Your task to perform on an android device: See recent photos Image 0: 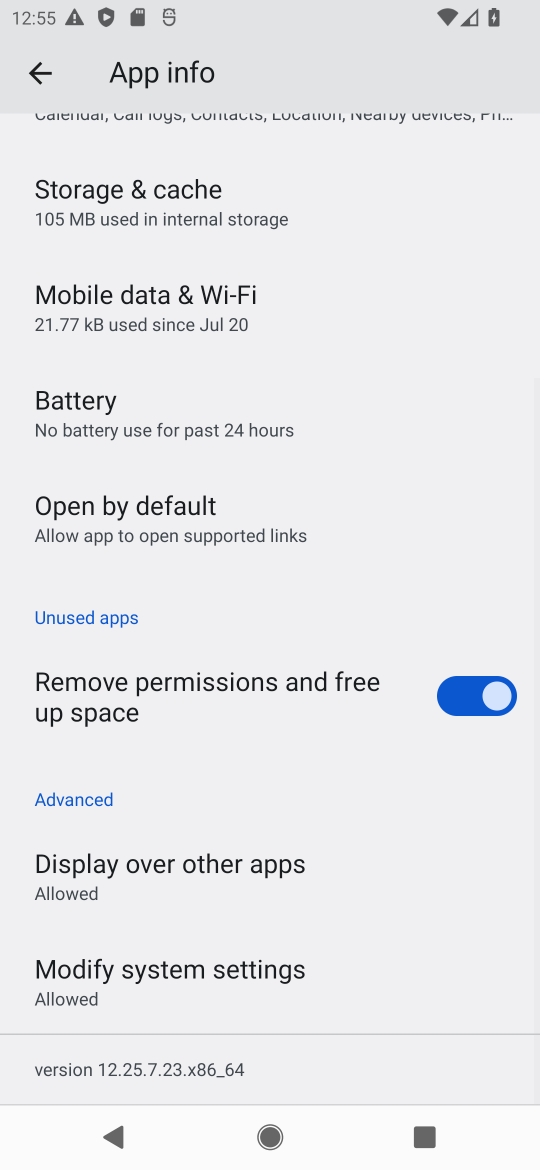
Step 0: press back button
Your task to perform on an android device: See recent photos Image 1: 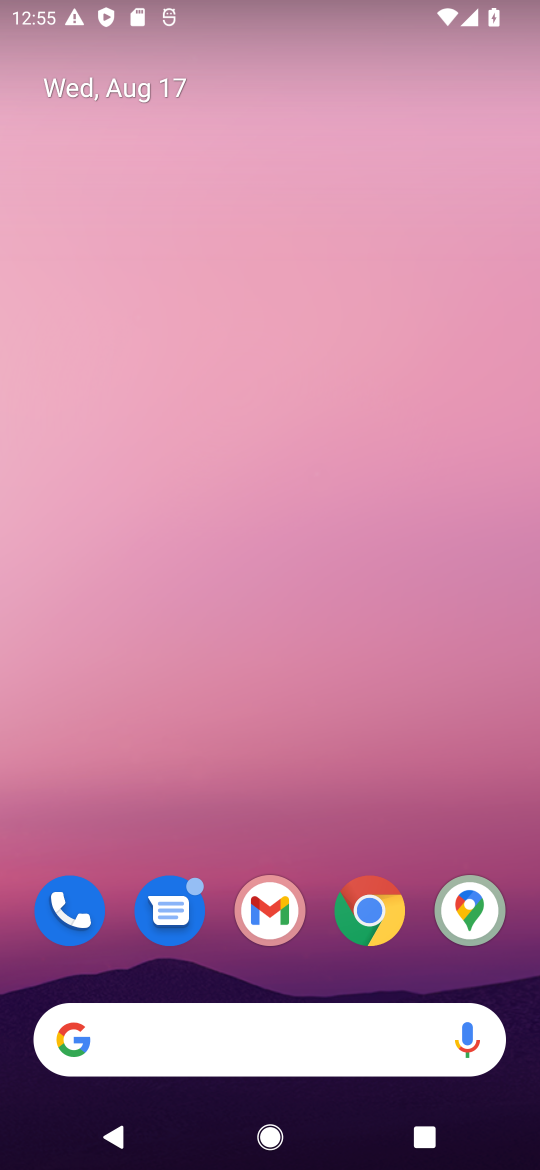
Step 1: drag from (250, 991) to (464, 4)
Your task to perform on an android device: See recent photos Image 2: 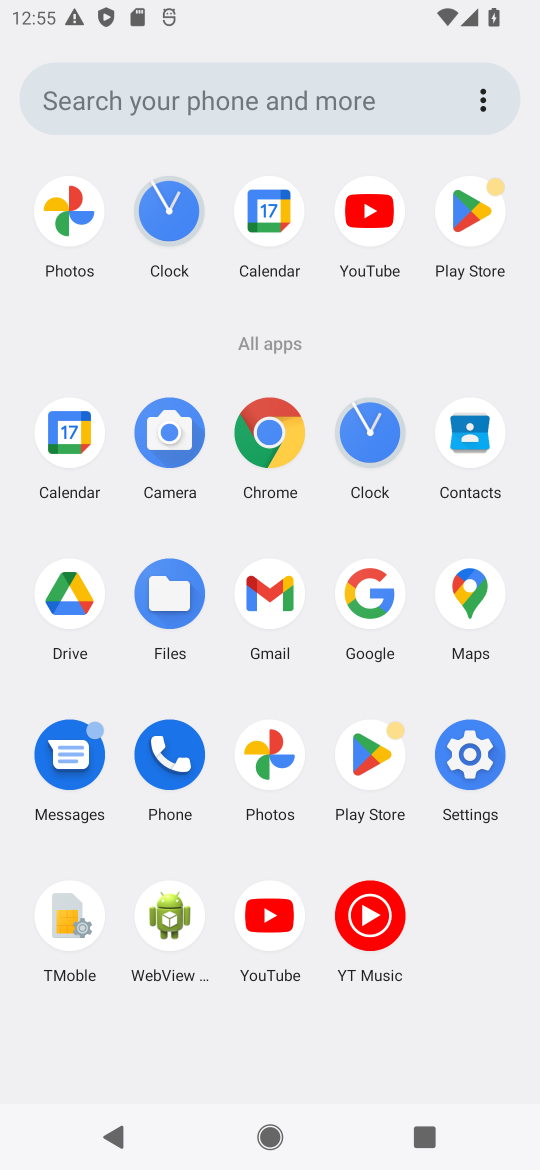
Step 2: click (66, 209)
Your task to perform on an android device: See recent photos Image 3: 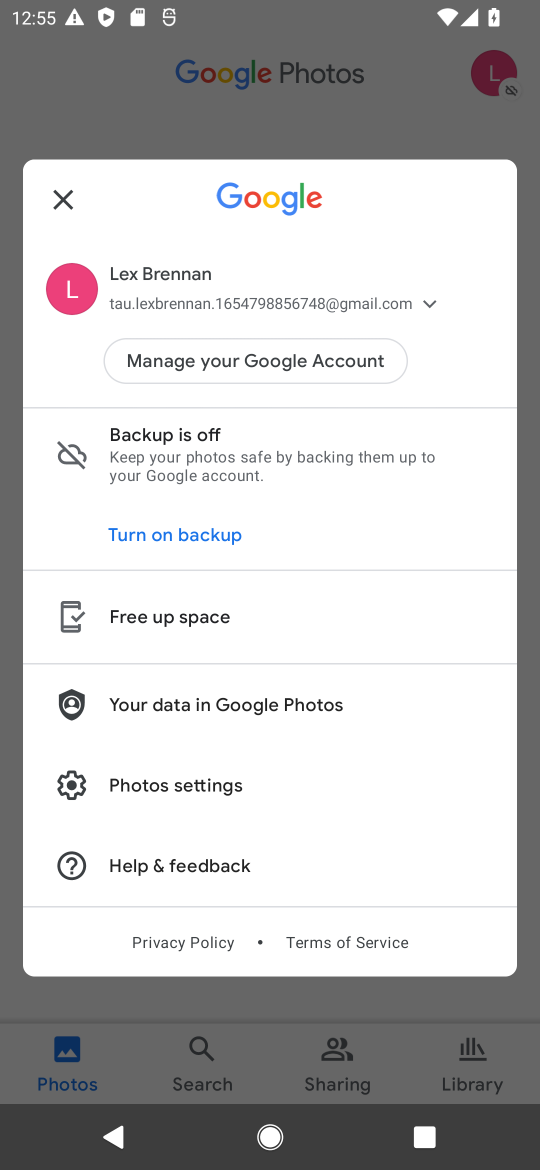
Step 3: click (71, 185)
Your task to perform on an android device: See recent photos Image 4: 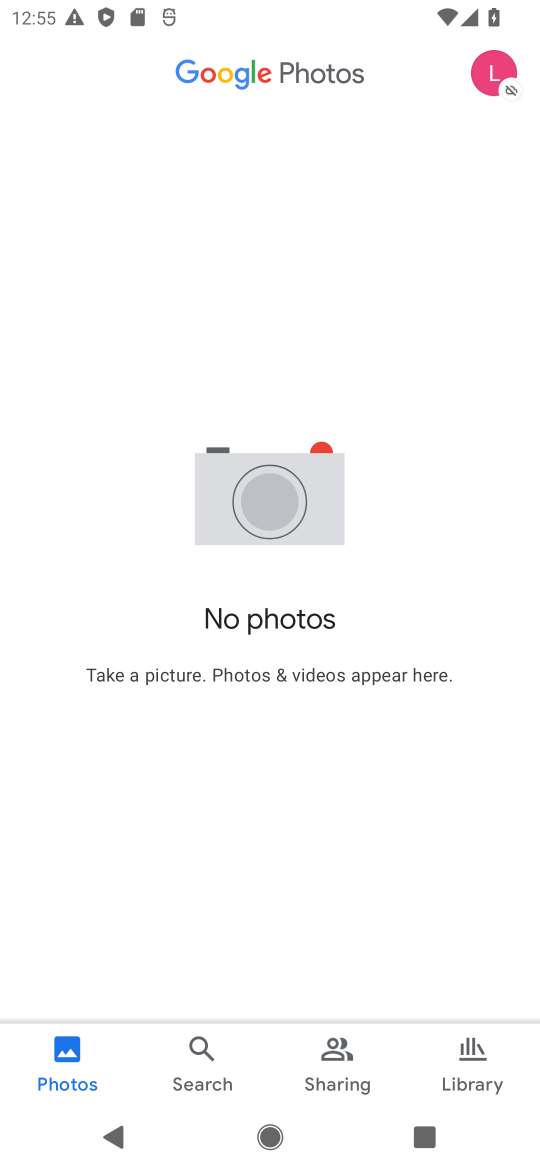
Step 4: click (59, 1057)
Your task to perform on an android device: See recent photos Image 5: 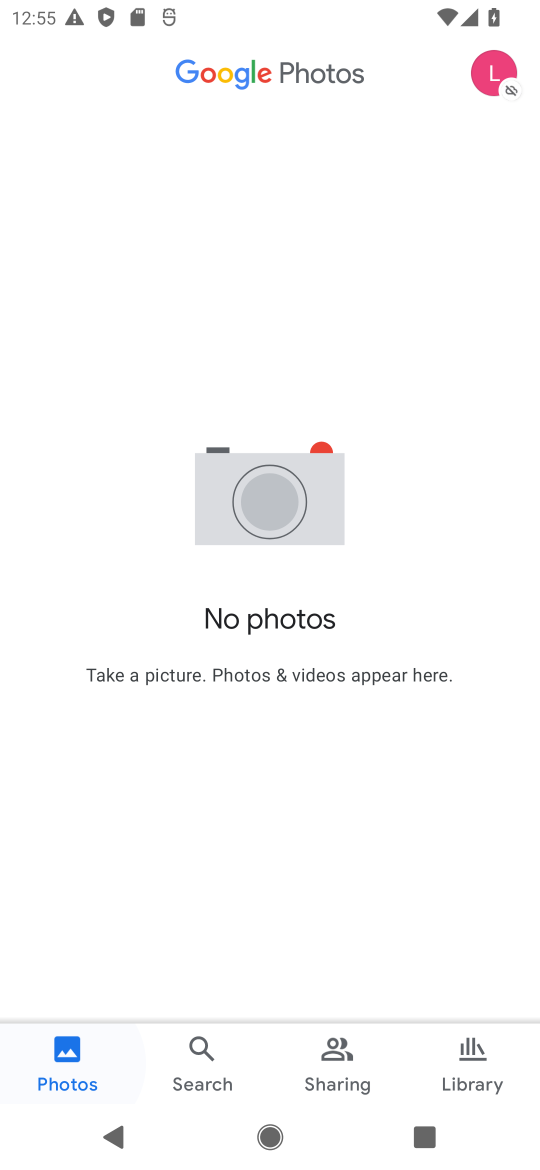
Step 5: task complete